Your task to perform on an android device: Open internet settings Image 0: 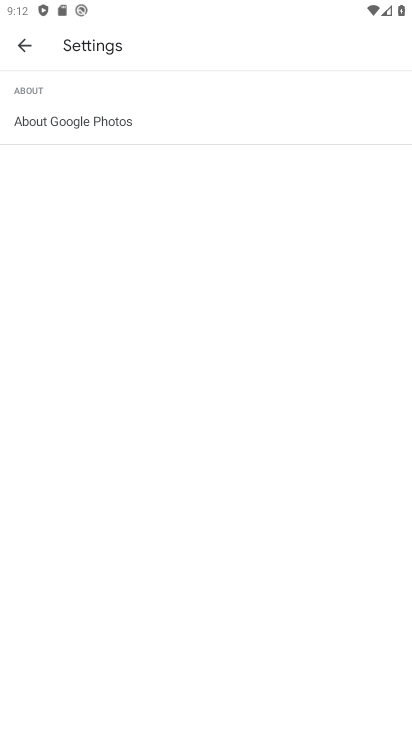
Step 0: press home button
Your task to perform on an android device: Open internet settings Image 1: 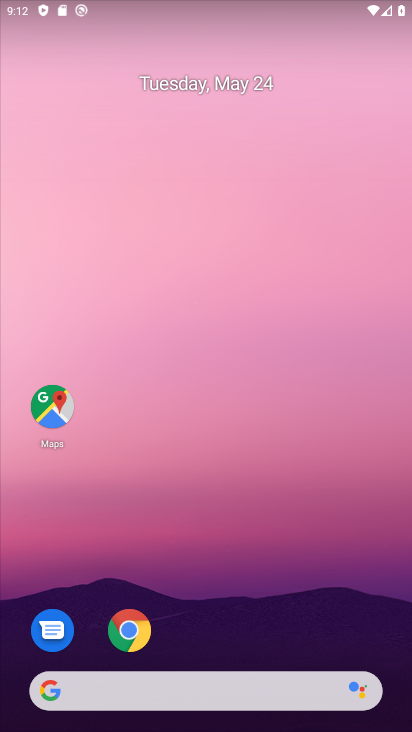
Step 1: drag from (207, 640) to (200, 68)
Your task to perform on an android device: Open internet settings Image 2: 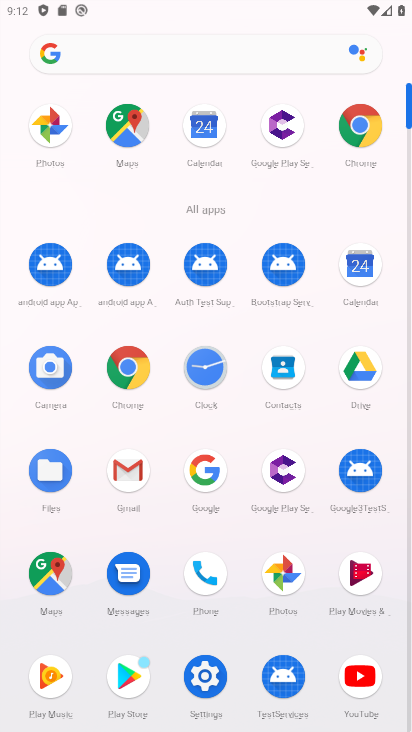
Step 2: click (200, 670)
Your task to perform on an android device: Open internet settings Image 3: 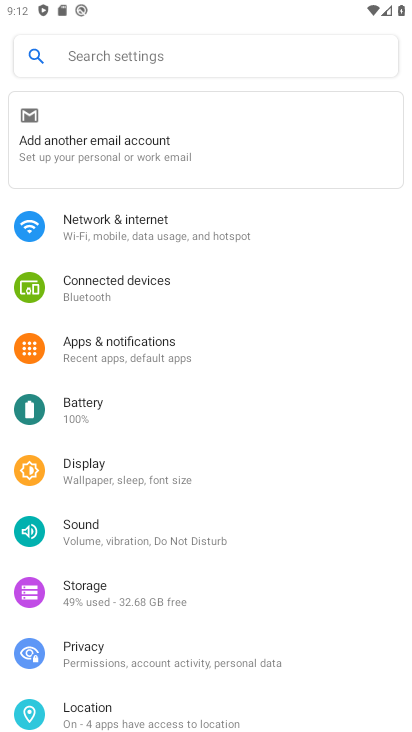
Step 3: click (183, 218)
Your task to perform on an android device: Open internet settings Image 4: 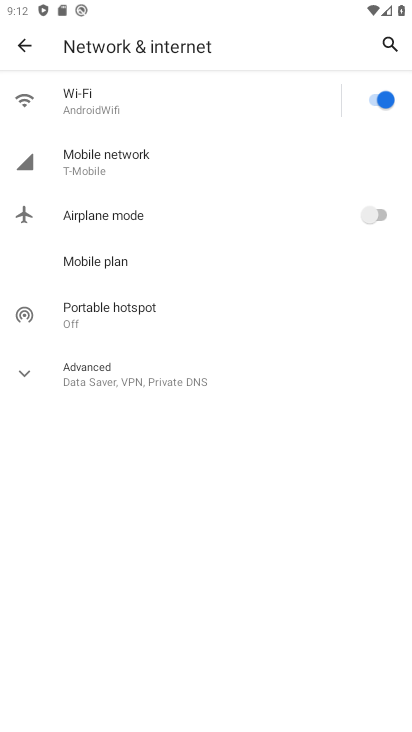
Step 4: click (22, 370)
Your task to perform on an android device: Open internet settings Image 5: 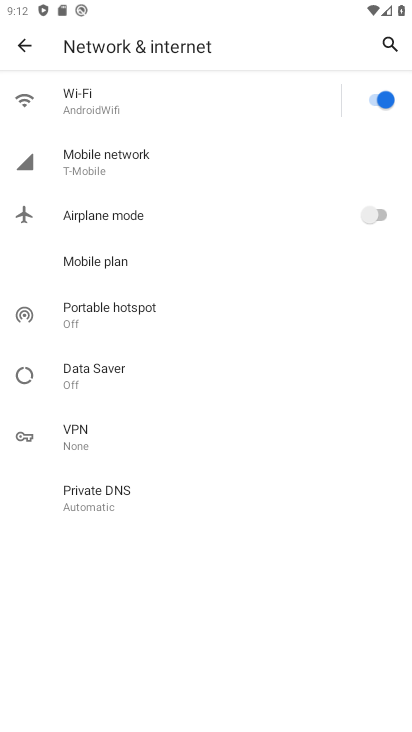
Step 5: task complete